Your task to perform on an android device: Open the map Image 0: 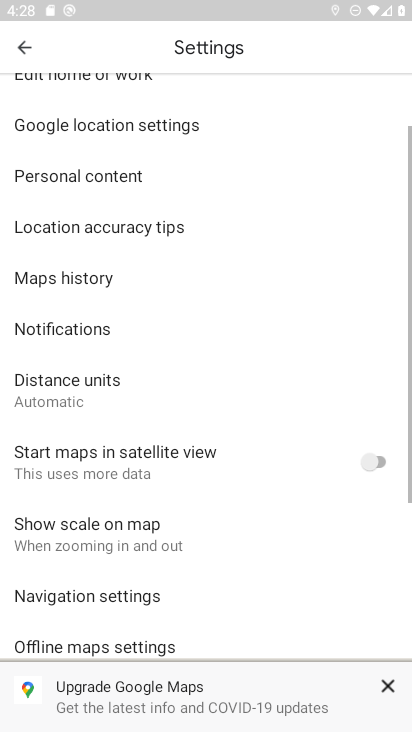
Step 0: press home button
Your task to perform on an android device: Open the map Image 1: 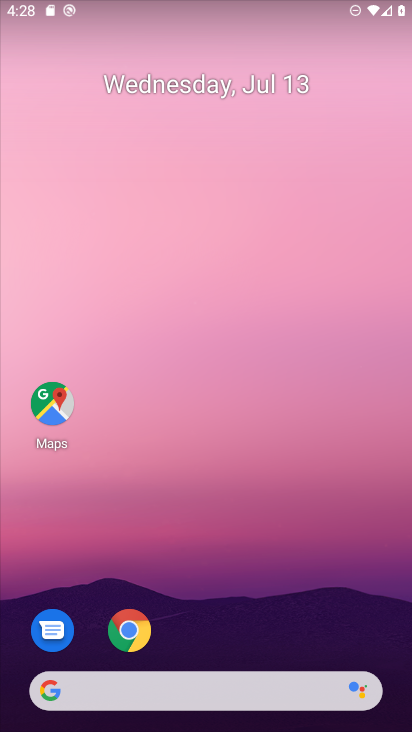
Step 1: click (50, 421)
Your task to perform on an android device: Open the map Image 2: 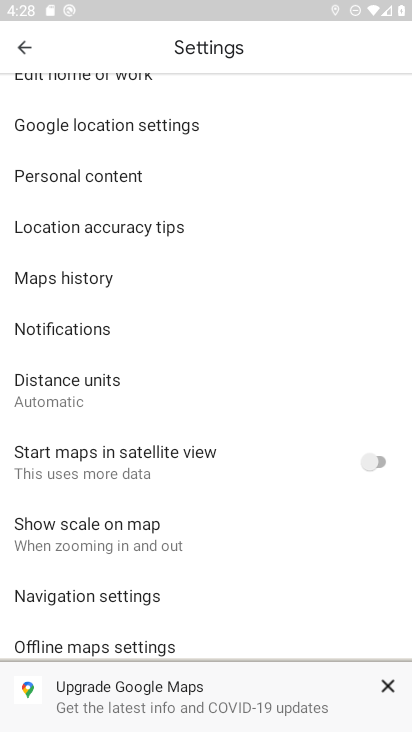
Step 2: click (22, 44)
Your task to perform on an android device: Open the map Image 3: 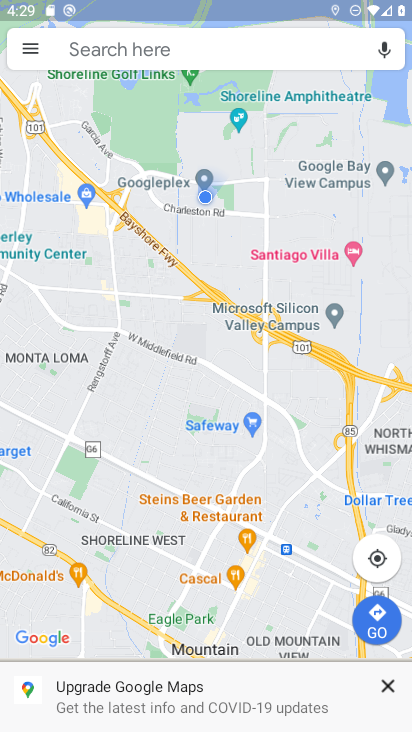
Step 3: task complete